Your task to perform on an android device: Open display settings Image 0: 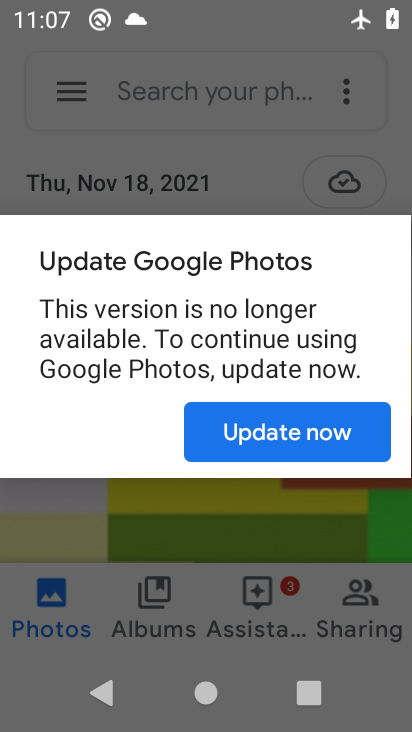
Step 0: press home button
Your task to perform on an android device: Open display settings Image 1: 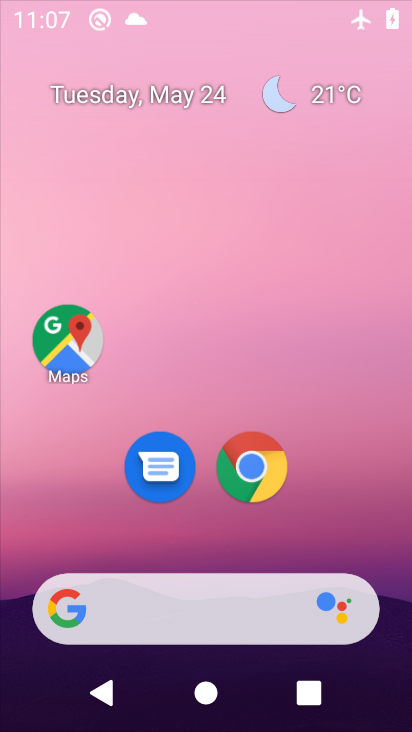
Step 1: click (239, 84)
Your task to perform on an android device: Open display settings Image 2: 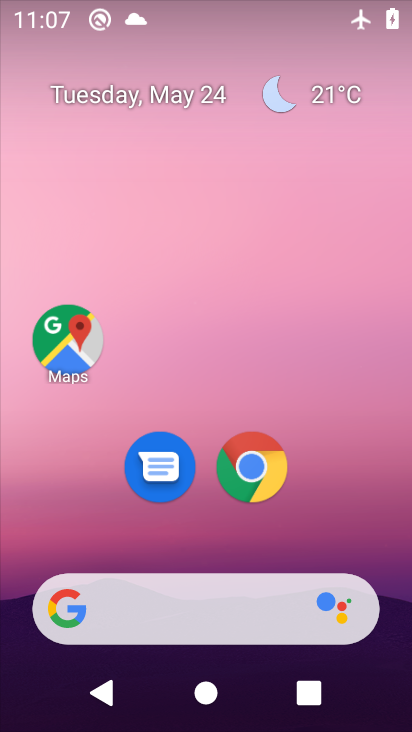
Step 2: drag from (173, 554) to (236, 89)
Your task to perform on an android device: Open display settings Image 3: 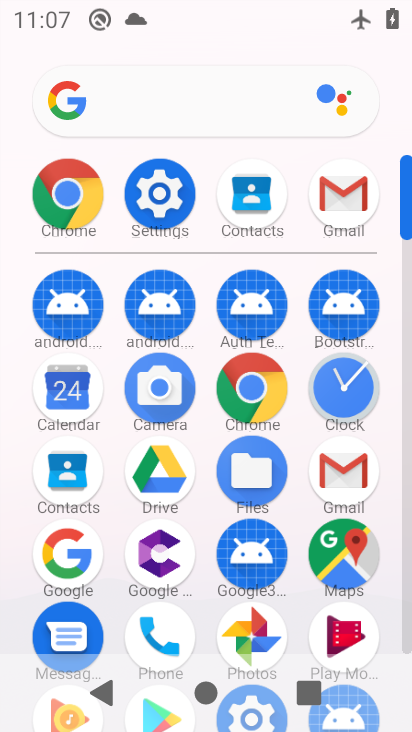
Step 3: click (170, 210)
Your task to perform on an android device: Open display settings Image 4: 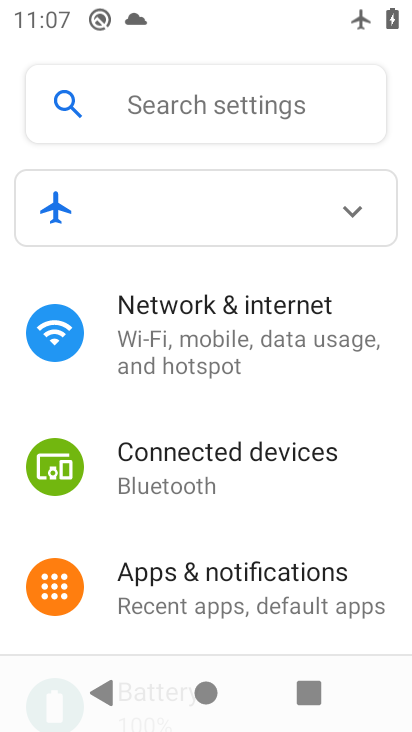
Step 4: drag from (185, 595) to (299, 153)
Your task to perform on an android device: Open display settings Image 5: 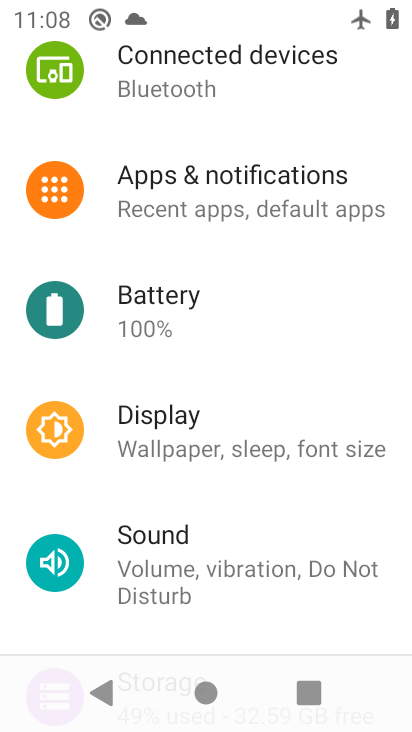
Step 5: click (164, 422)
Your task to perform on an android device: Open display settings Image 6: 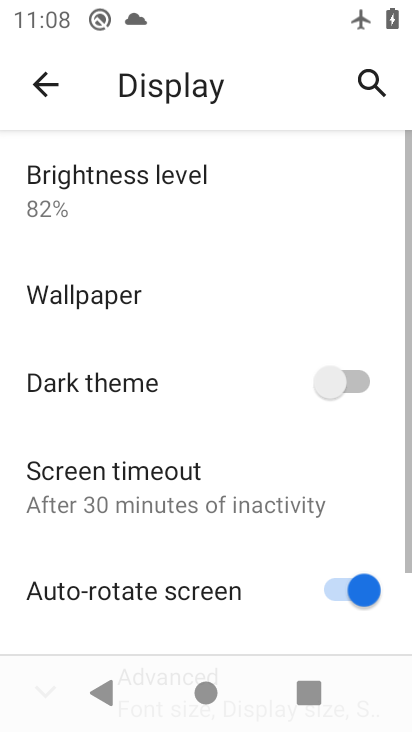
Step 6: task complete